Your task to perform on an android device: clear history in the chrome app Image 0: 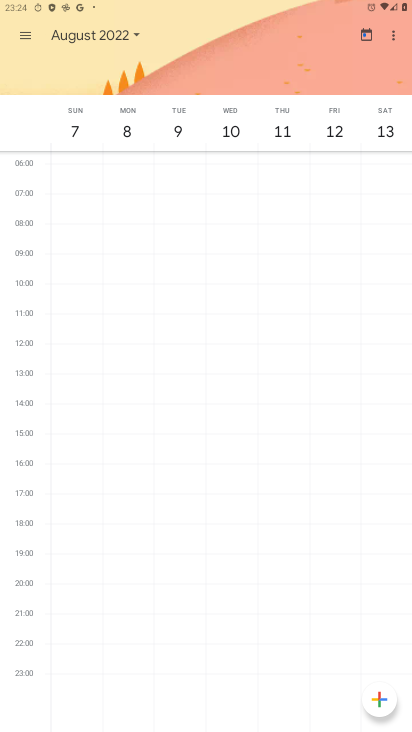
Step 0: press home button
Your task to perform on an android device: clear history in the chrome app Image 1: 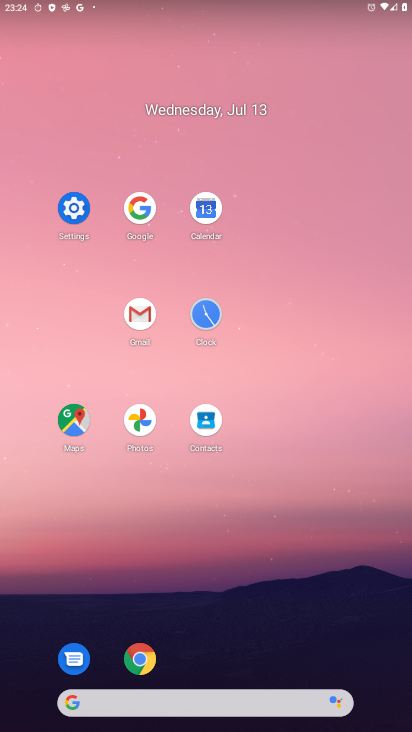
Step 1: click (149, 636)
Your task to perform on an android device: clear history in the chrome app Image 2: 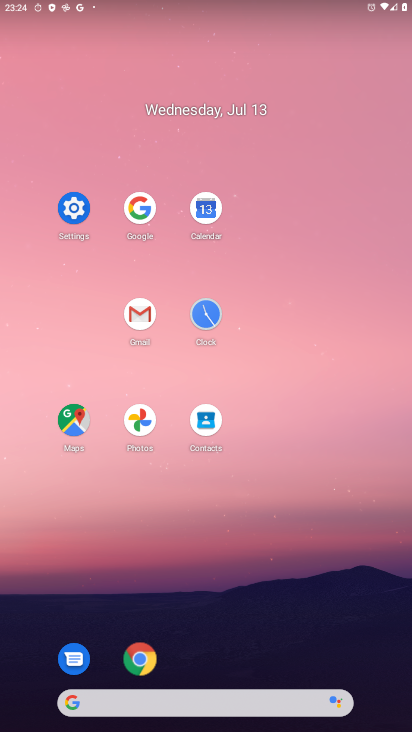
Step 2: click (148, 649)
Your task to perform on an android device: clear history in the chrome app Image 3: 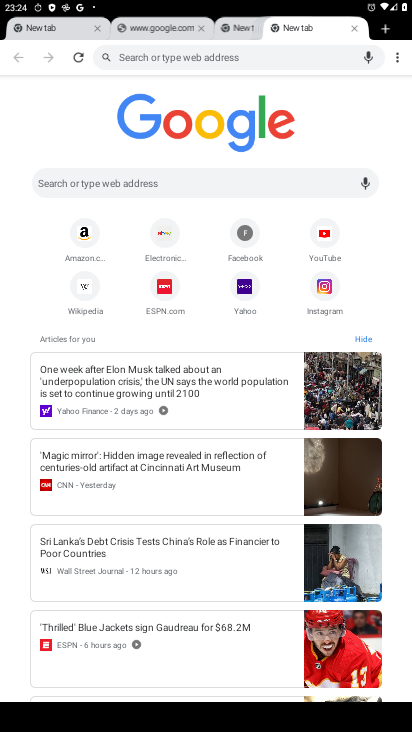
Step 3: click (398, 61)
Your task to perform on an android device: clear history in the chrome app Image 4: 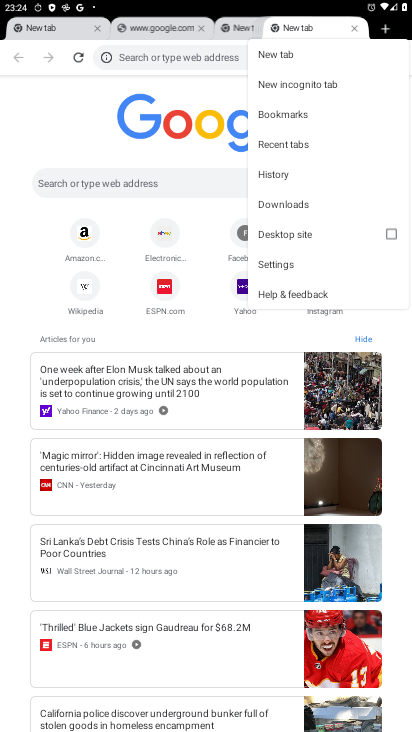
Step 4: click (317, 252)
Your task to perform on an android device: clear history in the chrome app Image 5: 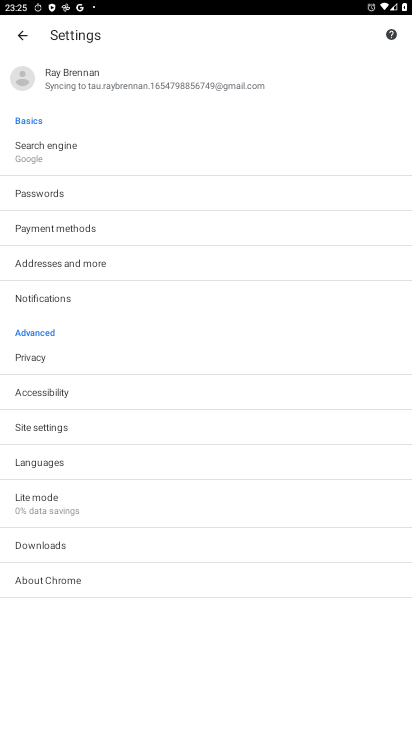
Step 5: click (105, 366)
Your task to perform on an android device: clear history in the chrome app Image 6: 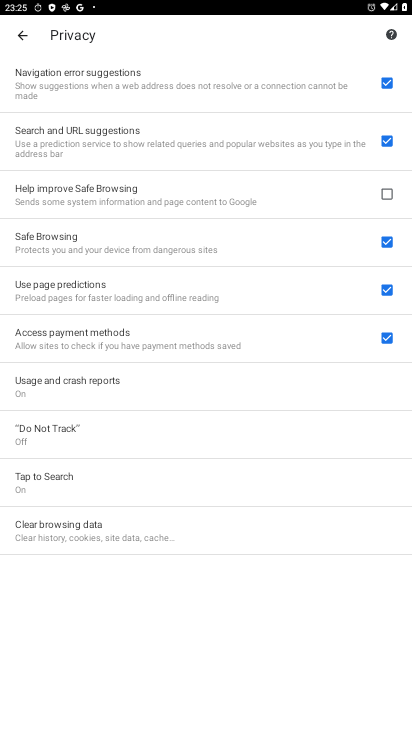
Step 6: click (167, 531)
Your task to perform on an android device: clear history in the chrome app Image 7: 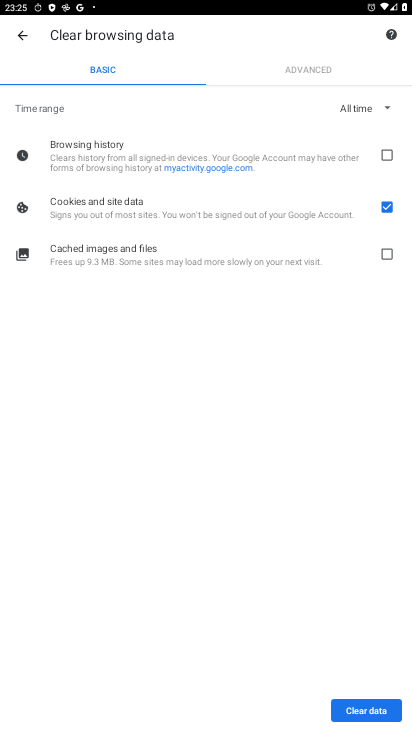
Step 7: click (389, 148)
Your task to perform on an android device: clear history in the chrome app Image 8: 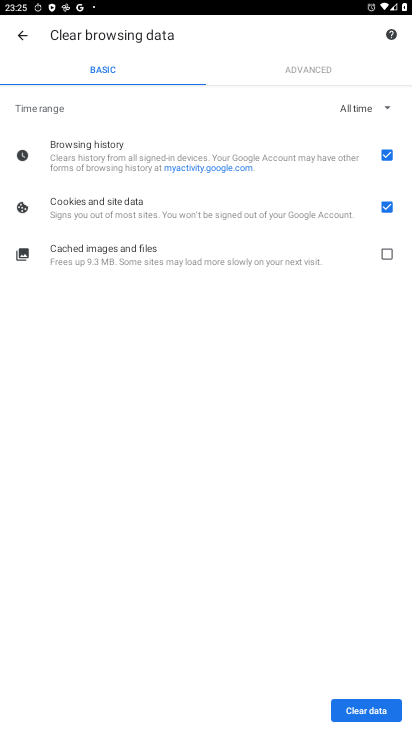
Step 8: click (379, 707)
Your task to perform on an android device: clear history in the chrome app Image 9: 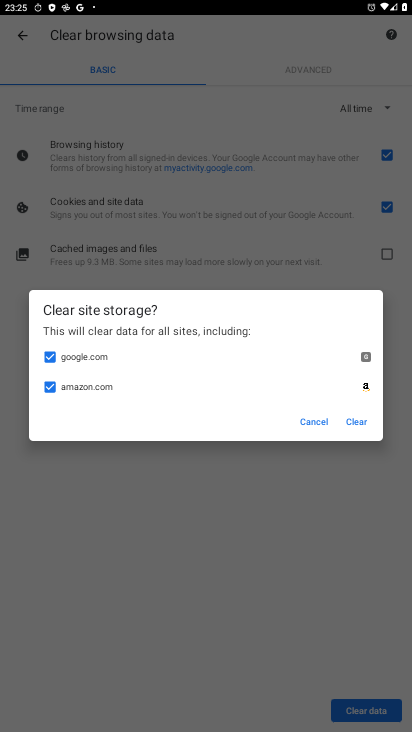
Step 9: click (352, 425)
Your task to perform on an android device: clear history in the chrome app Image 10: 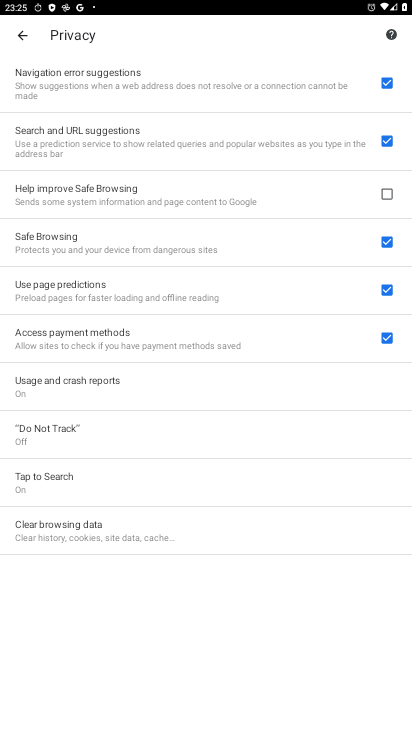
Step 10: task complete